Your task to perform on an android device: read, delete, or share a saved page in the chrome app Image 0: 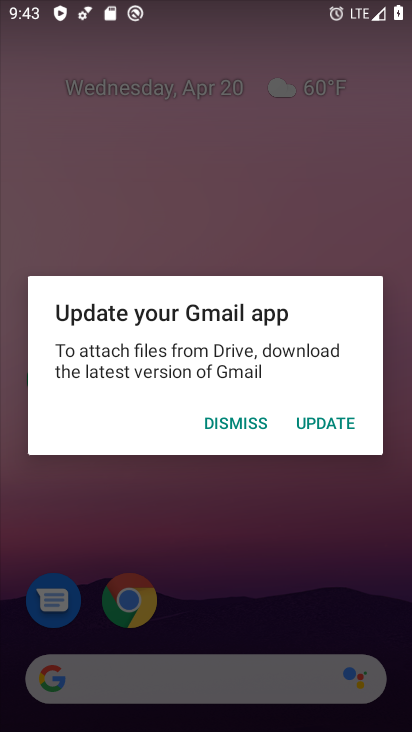
Step 0: click (205, 416)
Your task to perform on an android device: read, delete, or share a saved page in the chrome app Image 1: 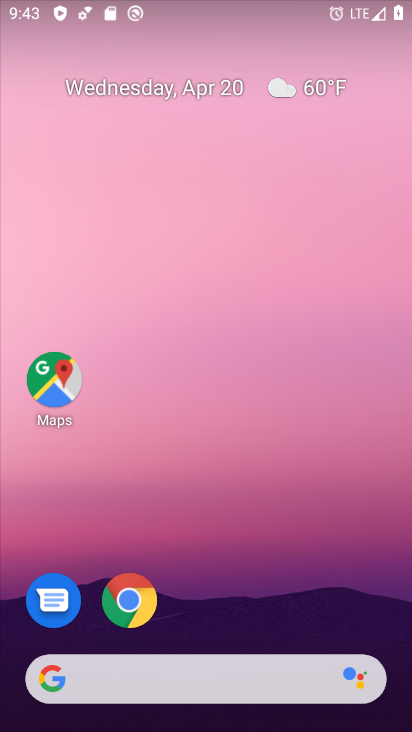
Step 1: click (124, 597)
Your task to perform on an android device: read, delete, or share a saved page in the chrome app Image 2: 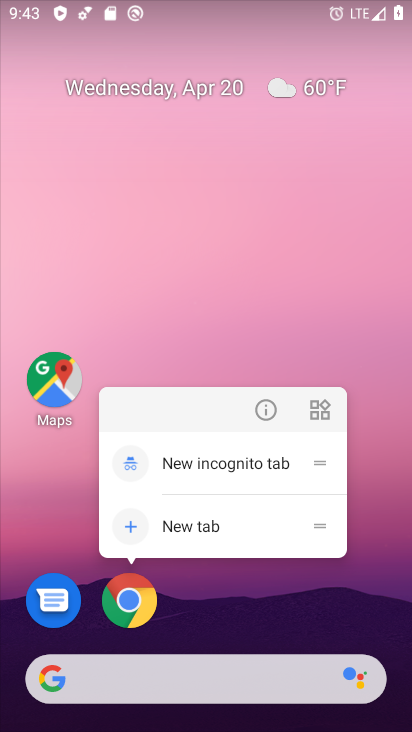
Step 2: click (124, 597)
Your task to perform on an android device: read, delete, or share a saved page in the chrome app Image 3: 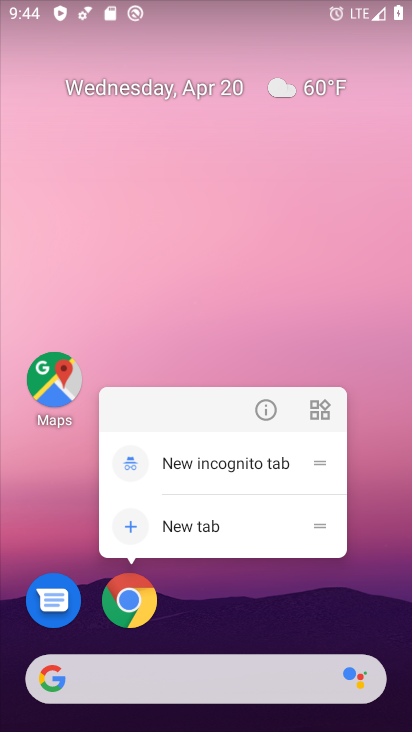
Step 3: click (124, 597)
Your task to perform on an android device: read, delete, or share a saved page in the chrome app Image 4: 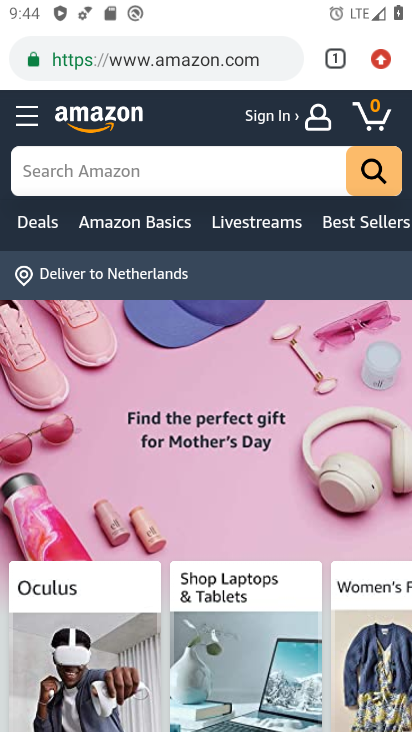
Step 4: click (384, 55)
Your task to perform on an android device: read, delete, or share a saved page in the chrome app Image 5: 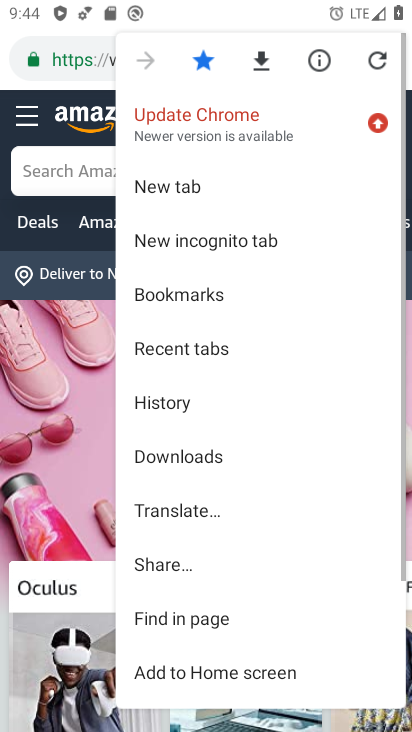
Step 5: drag from (230, 571) to (221, 324)
Your task to perform on an android device: read, delete, or share a saved page in the chrome app Image 6: 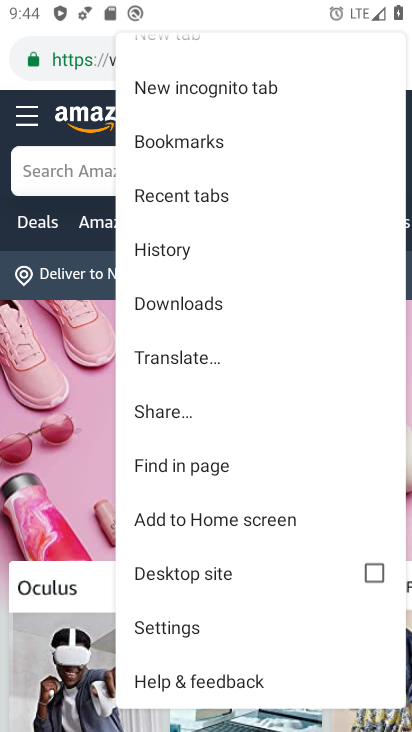
Step 6: click (206, 300)
Your task to perform on an android device: read, delete, or share a saved page in the chrome app Image 7: 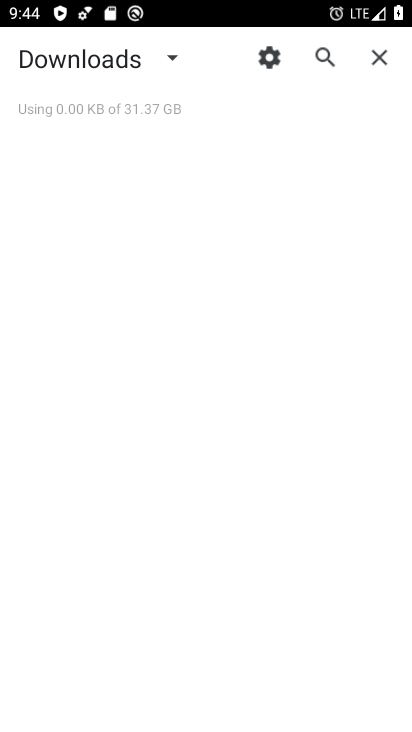
Step 7: task complete